Your task to perform on an android device: open the mobile data screen to see how much data has been used Image 0: 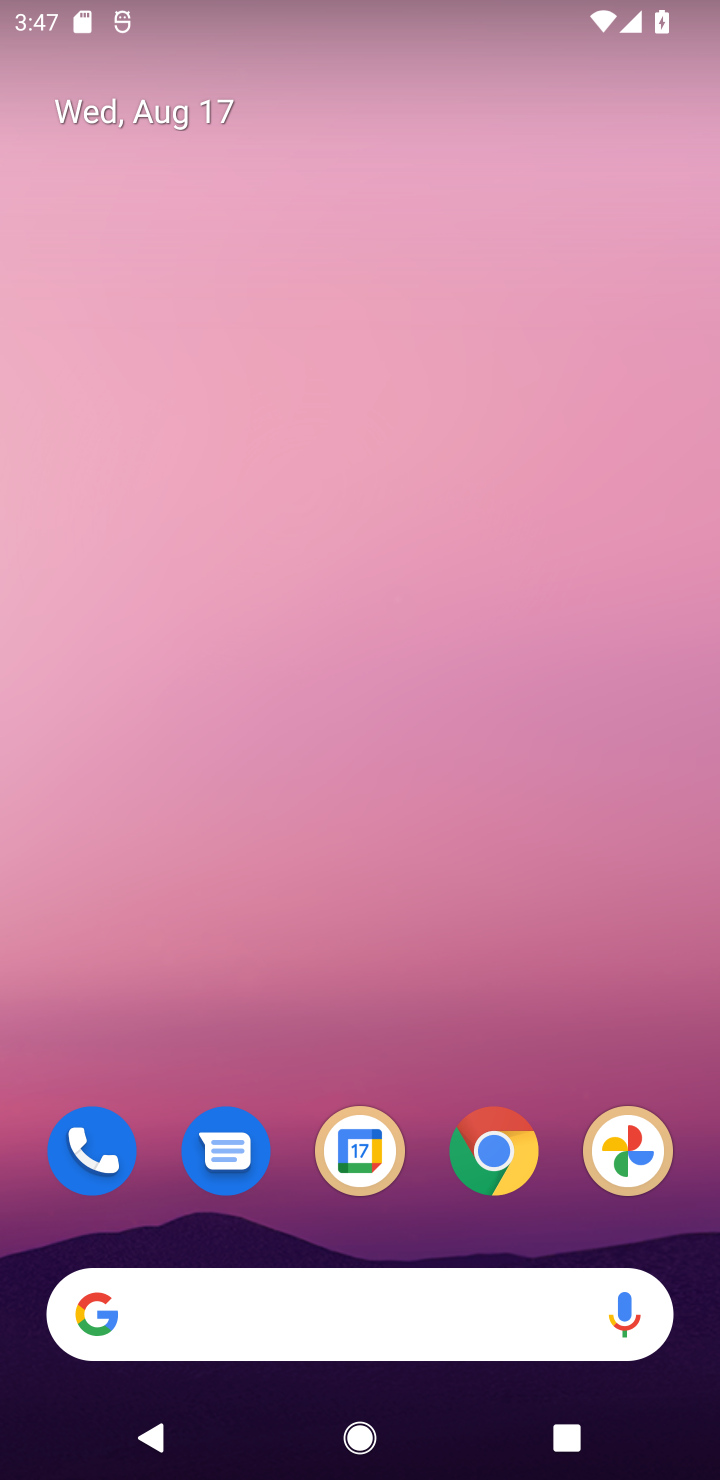
Step 0: drag from (426, 1242) to (426, 102)
Your task to perform on an android device: open the mobile data screen to see how much data has been used Image 1: 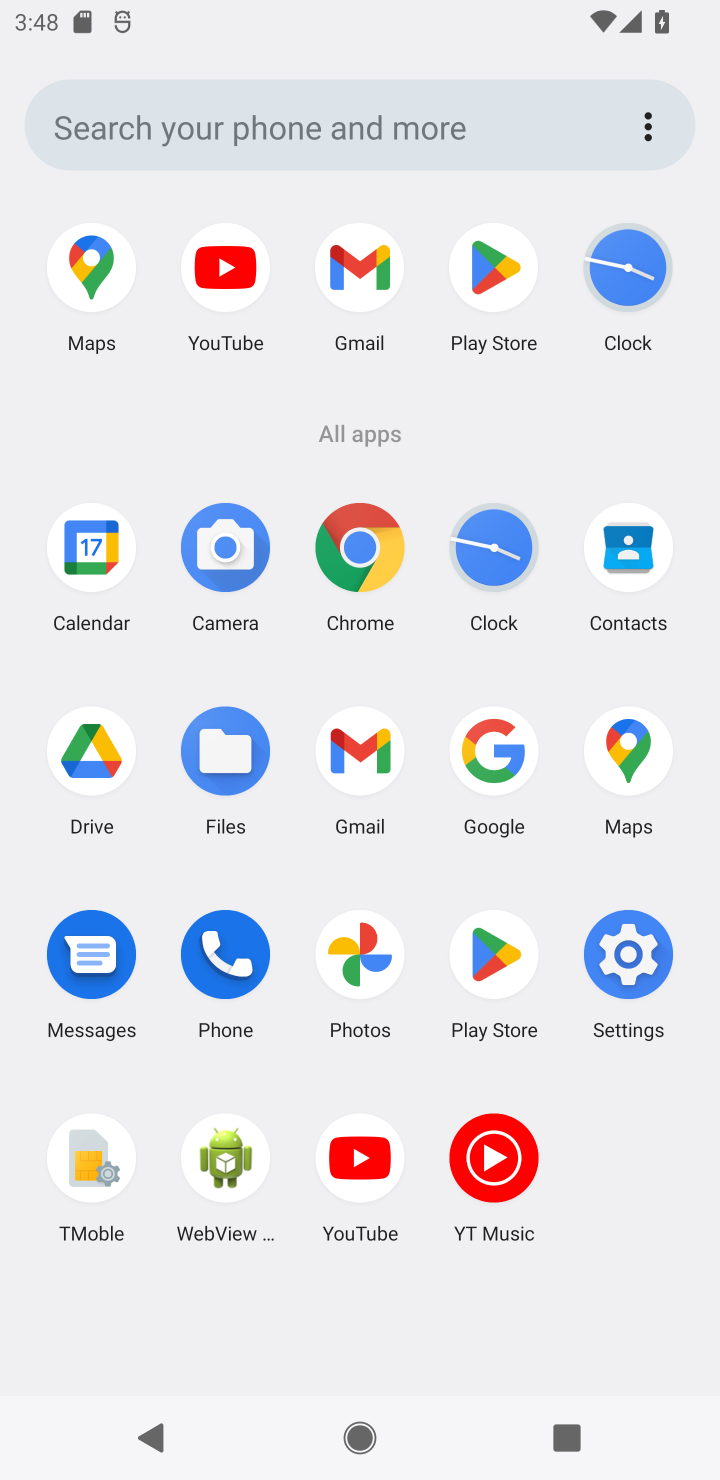
Step 1: click (621, 1017)
Your task to perform on an android device: open the mobile data screen to see how much data has been used Image 2: 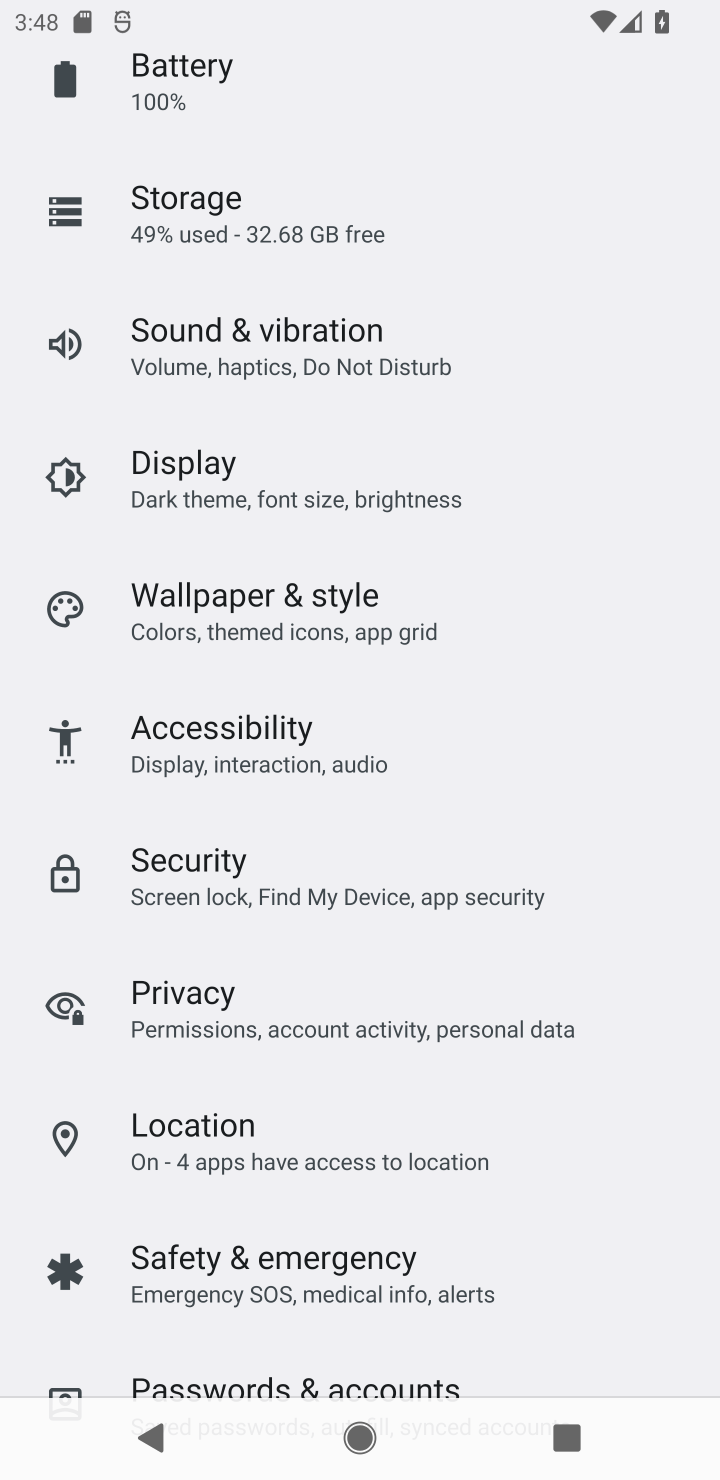
Step 2: drag from (323, 277) to (392, 1331)
Your task to perform on an android device: open the mobile data screen to see how much data has been used Image 3: 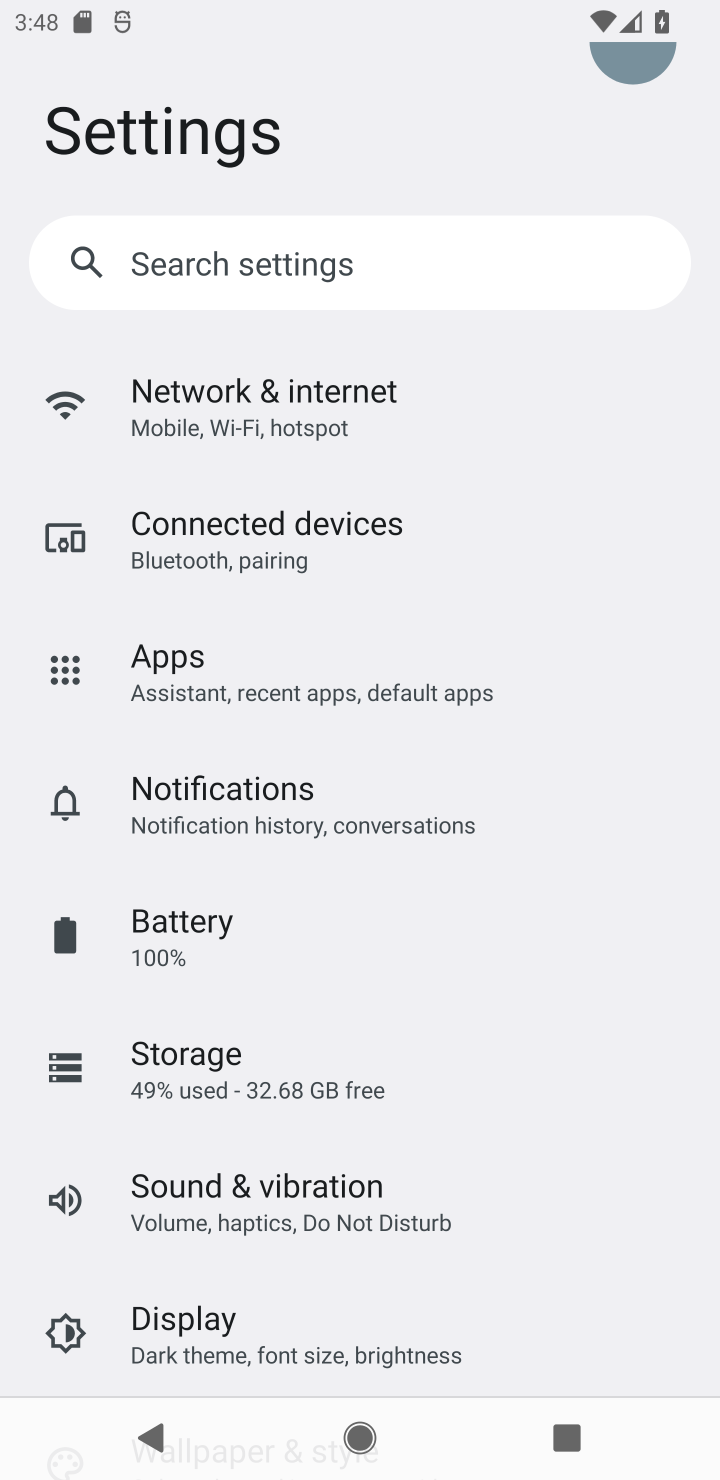
Step 3: click (278, 493)
Your task to perform on an android device: open the mobile data screen to see how much data has been used Image 4: 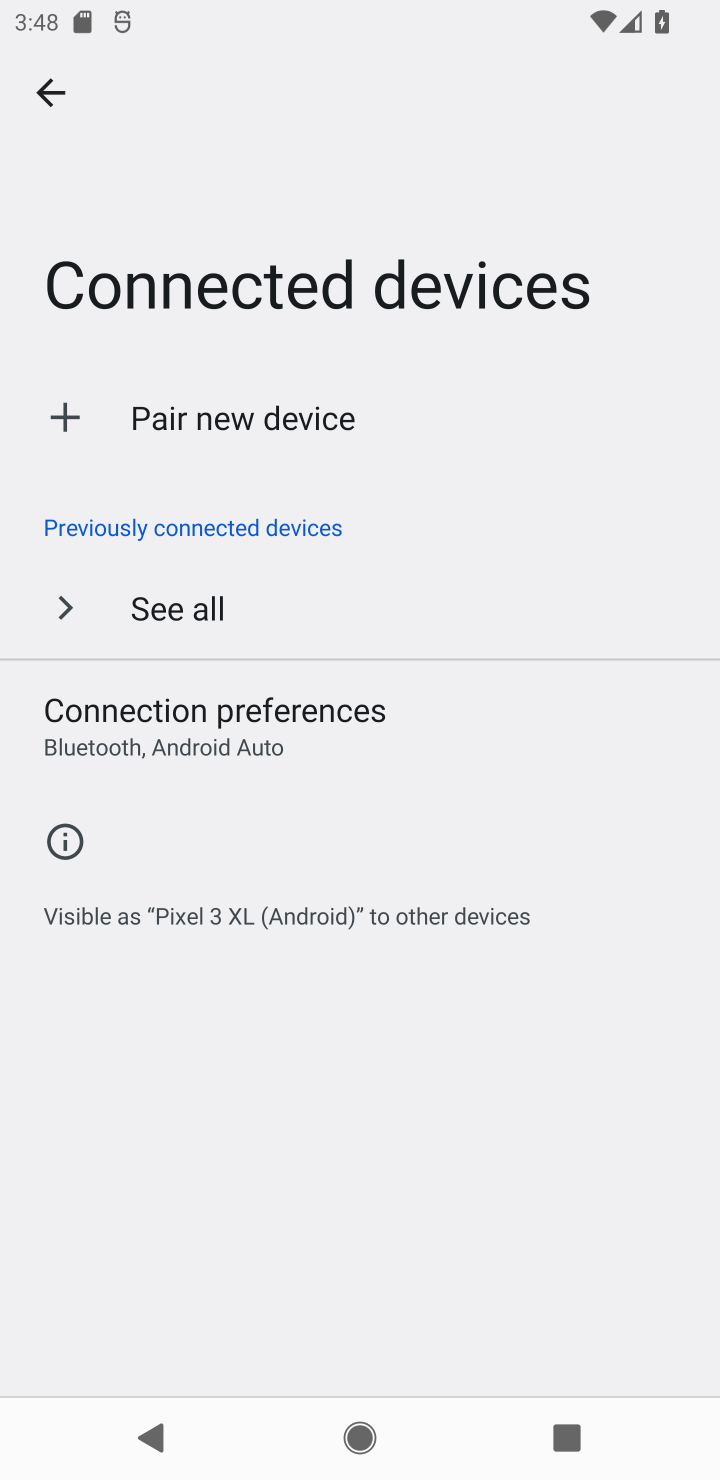
Step 4: task complete